Your task to perform on an android device: turn smart compose on in the gmail app Image 0: 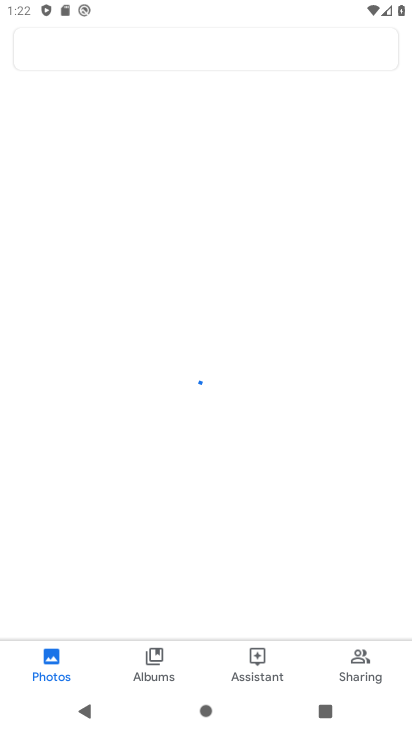
Step 0: press home button
Your task to perform on an android device: turn smart compose on in the gmail app Image 1: 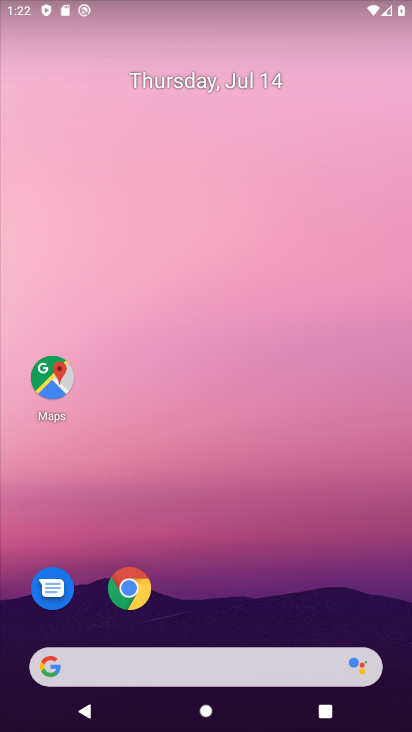
Step 1: drag from (313, 531) to (301, 135)
Your task to perform on an android device: turn smart compose on in the gmail app Image 2: 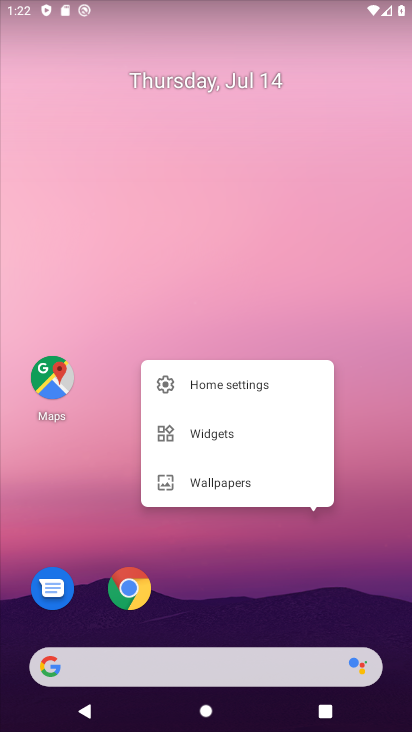
Step 2: click (336, 312)
Your task to perform on an android device: turn smart compose on in the gmail app Image 3: 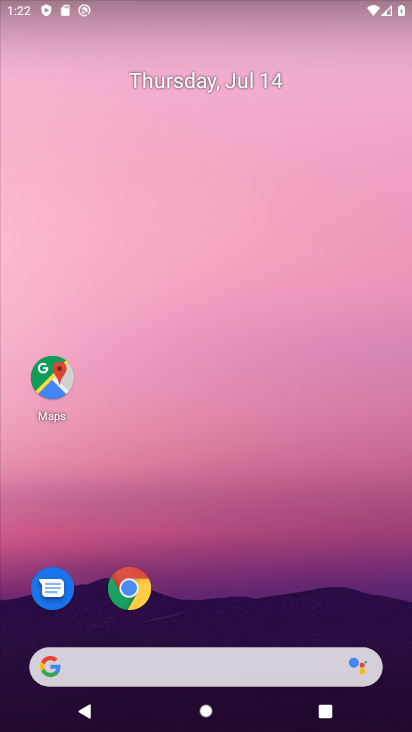
Step 3: drag from (314, 629) to (327, 301)
Your task to perform on an android device: turn smart compose on in the gmail app Image 4: 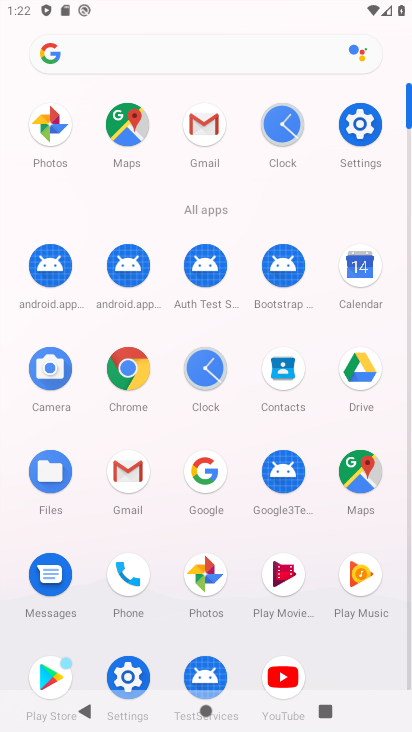
Step 4: click (203, 132)
Your task to perform on an android device: turn smart compose on in the gmail app Image 5: 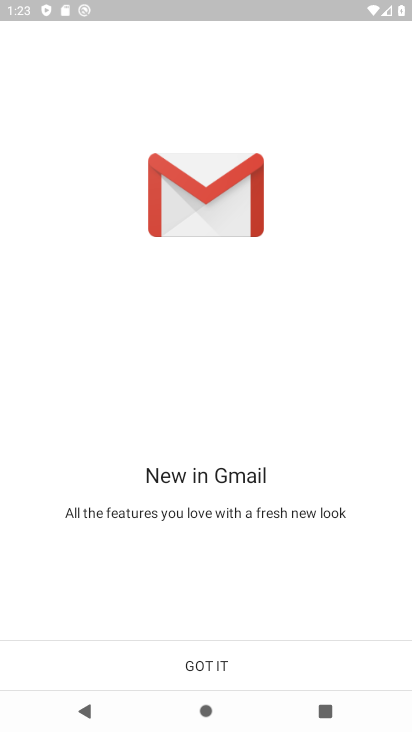
Step 5: click (221, 664)
Your task to perform on an android device: turn smart compose on in the gmail app Image 6: 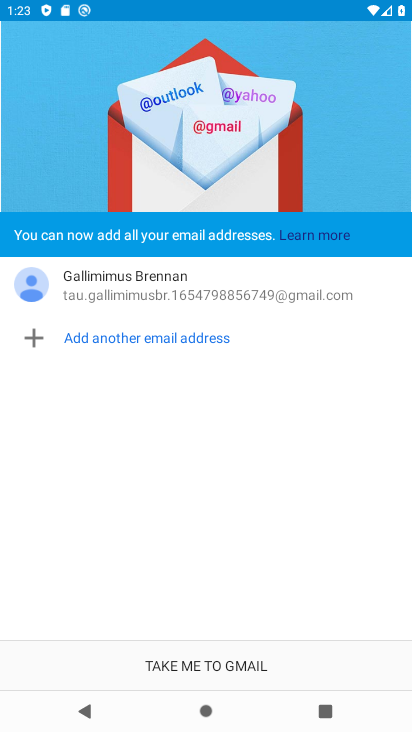
Step 6: click (221, 664)
Your task to perform on an android device: turn smart compose on in the gmail app Image 7: 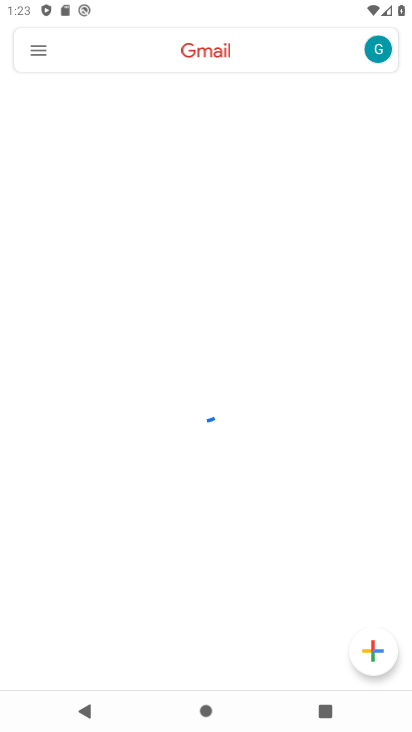
Step 7: click (37, 63)
Your task to perform on an android device: turn smart compose on in the gmail app Image 8: 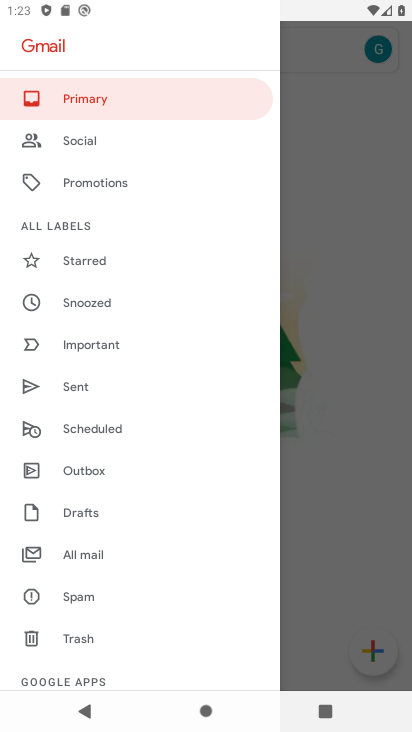
Step 8: drag from (123, 595) to (123, 222)
Your task to perform on an android device: turn smart compose on in the gmail app Image 9: 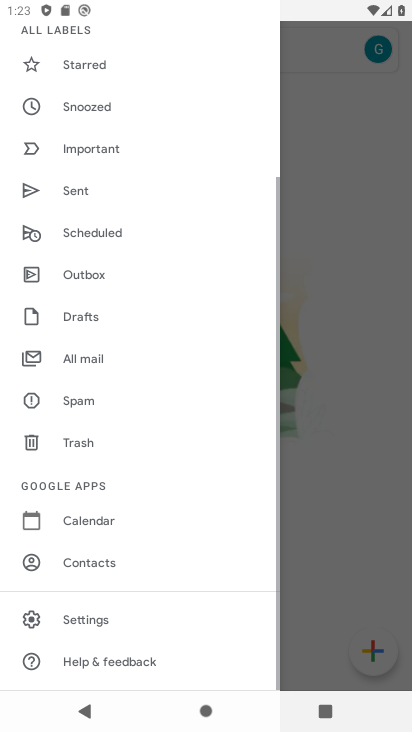
Step 9: click (108, 621)
Your task to perform on an android device: turn smart compose on in the gmail app Image 10: 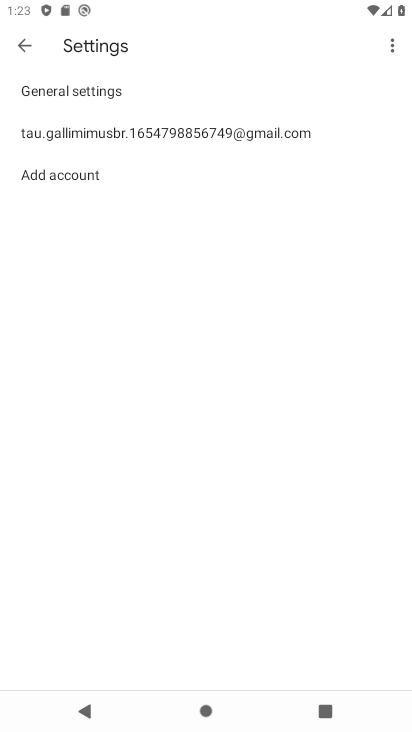
Step 10: click (190, 140)
Your task to perform on an android device: turn smart compose on in the gmail app Image 11: 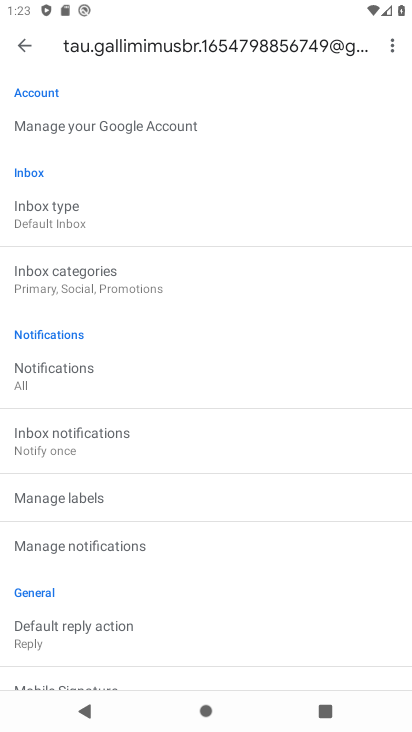
Step 11: task complete